Your task to perform on an android device: Search for seafood restaurants on Google Maps Image 0: 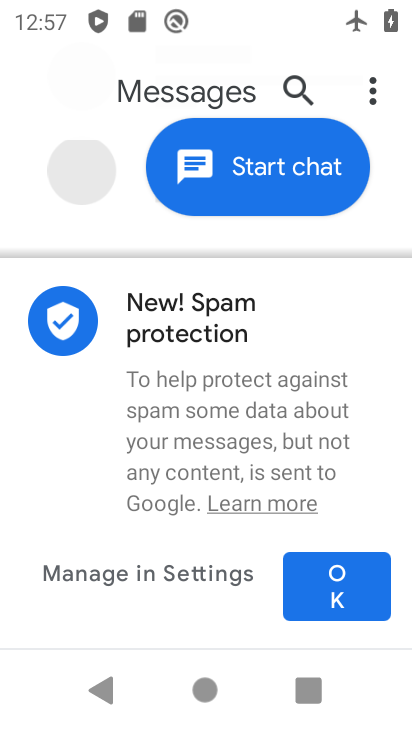
Step 0: press home button
Your task to perform on an android device: Search for seafood restaurants on Google Maps Image 1: 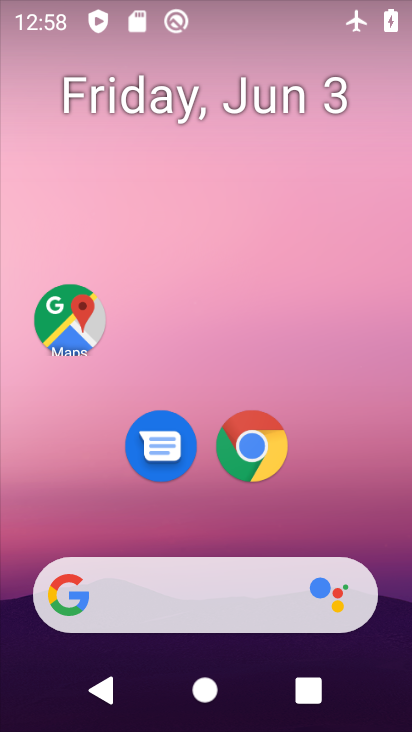
Step 1: click (55, 311)
Your task to perform on an android device: Search for seafood restaurants on Google Maps Image 2: 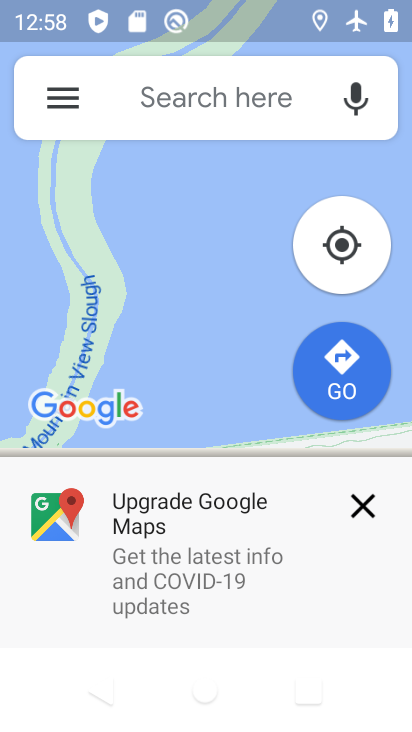
Step 2: click (361, 505)
Your task to perform on an android device: Search for seafood restaurants on Google Maps Image 3: 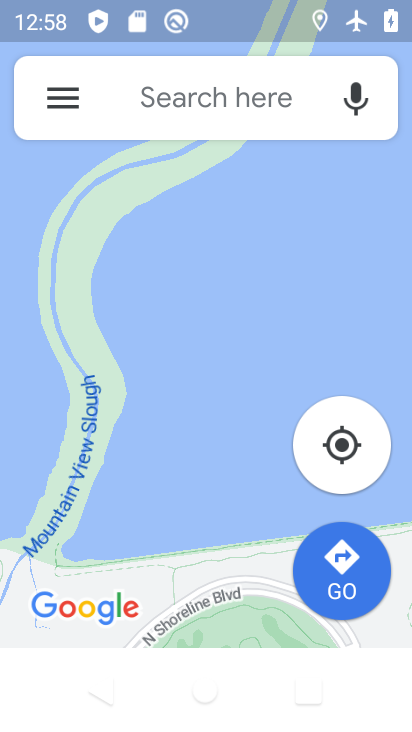
Step 3: click (189, 107)
Your task to perform on an android device: Search for seafood restaurants on Google Maps Image 4: 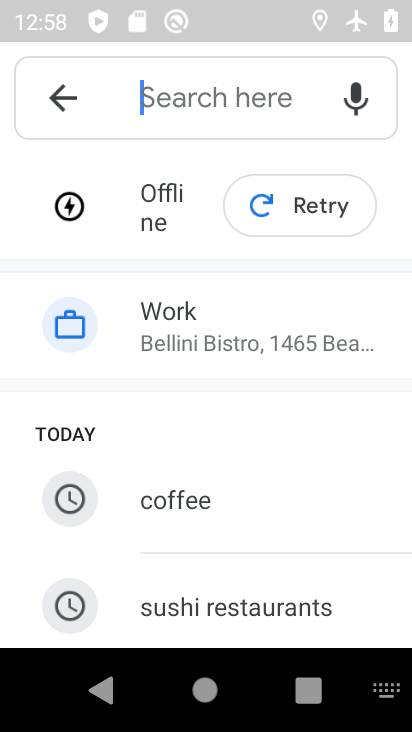
Step 4: drag from (282, 567) to (220, 141)
Your task to perform on an android device: Search for seafood restaurants on Google Maps Image 5: 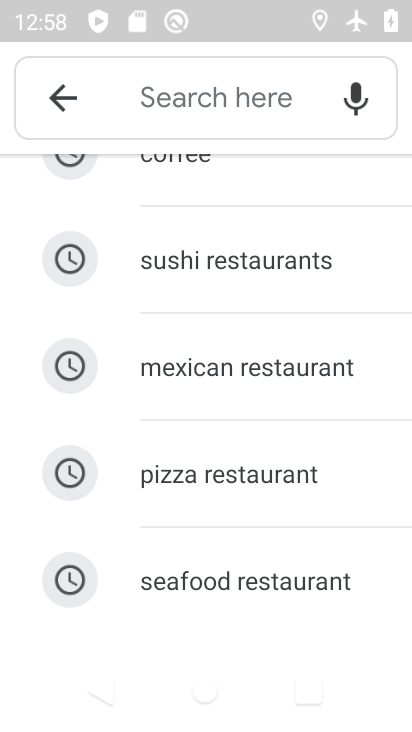
Step 5: click (266, 585)
Your task to perform on an android device: Search for seafood restaurants on Google Maps Image 6: 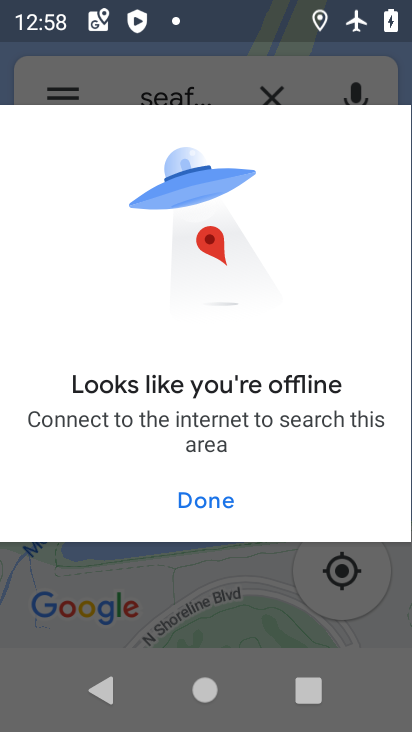
Step 6: task complete